Your task to perform on an android device: snooze an email in the gmail app Image 0: 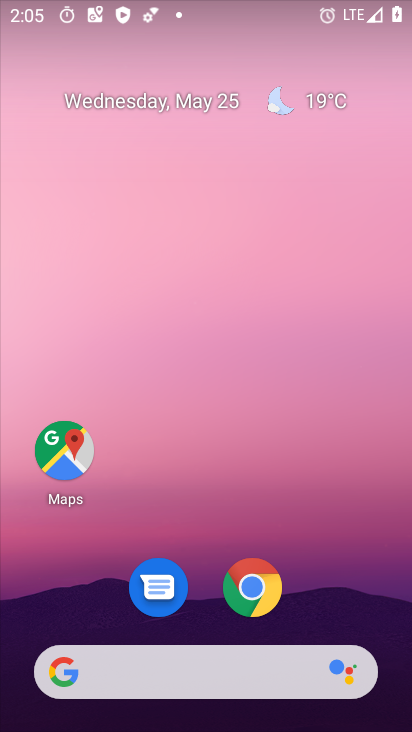
Step 0: drag from (205, 725) to (210, 101)
Your task to perform on an android device: snooze an email in the gmail app Image 1: 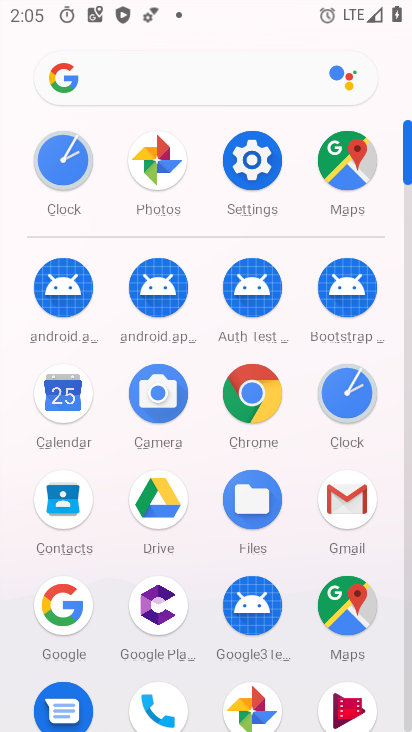
Step 1: click (338, 492)
Your task to perform on an android device: snooze an email in the gmail app Image 2: 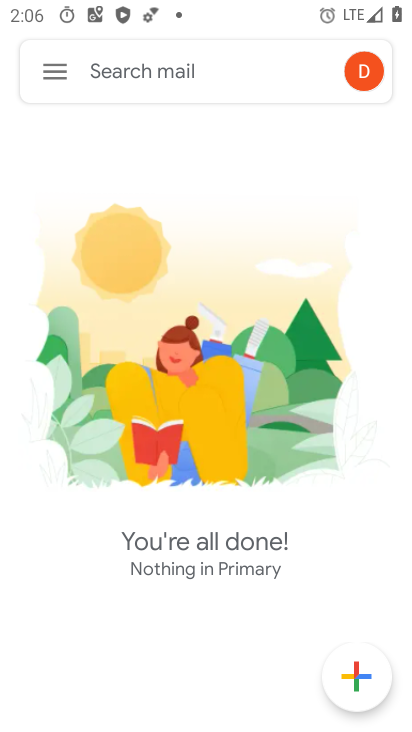
Step 2: task complete